Your task to perform on an android device: turn vacation reply on in the gmail app Image 0: 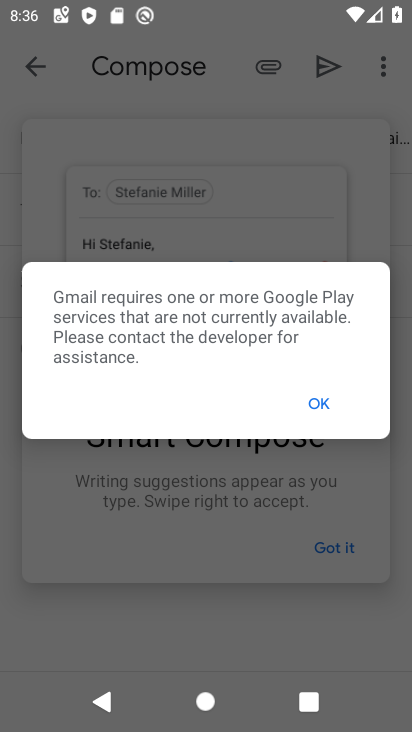
Step 0: press home button
Your task to perform on an android device: turn vacation reply on in the gmail app Image 1: 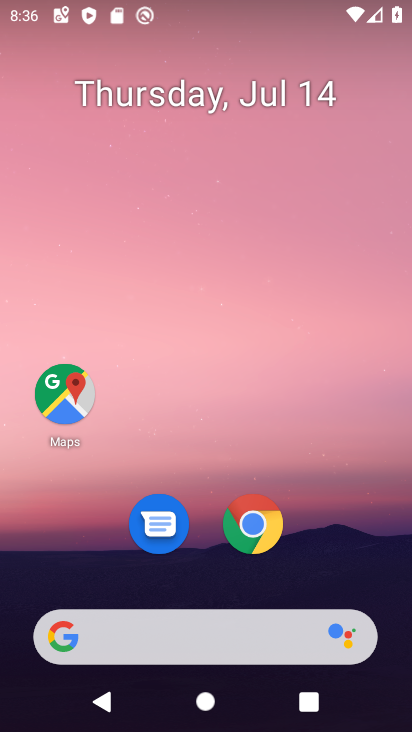
Step 1: drag from (318, 550) to (332, 37)
Your task to perform on an android device: turn vacation reply on in the gmail app Image 2: 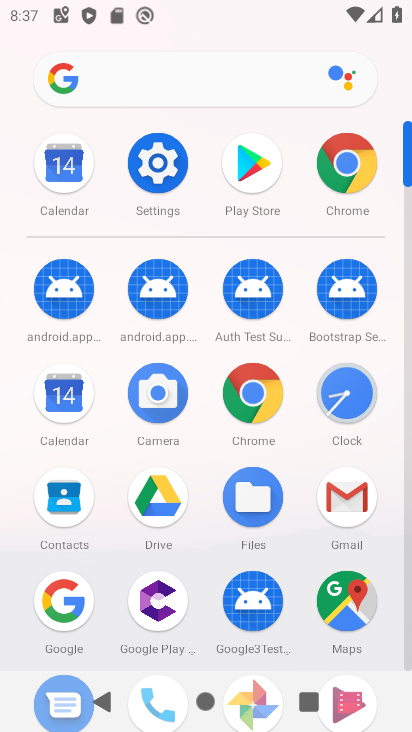
Step 2: click (352, 496)
Your task to perform on an android device: turn vacation reply on in the gmail app Image 3: 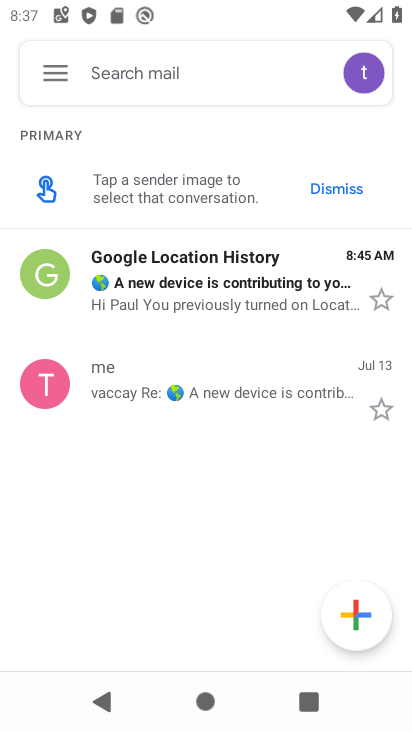
Step 3: click (53, 69)
Your task to perform on an android device: turn vacation reply on in the gmail app Image 4: 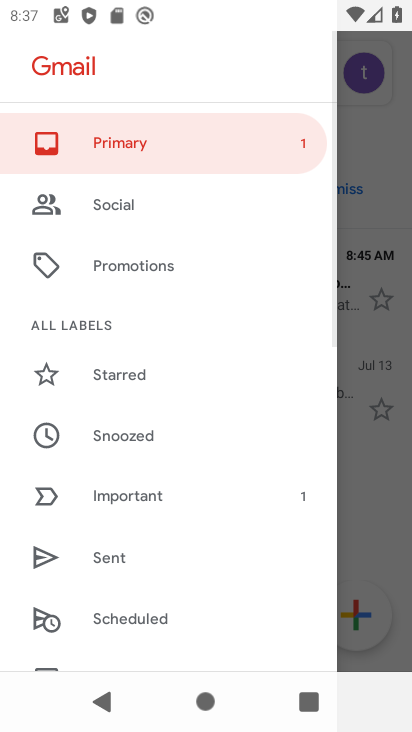
Step 4: drag from (164, 554) to (210, 48)
Your task to perform on an android device: turn vacation reply on in the gmail app Image 5: 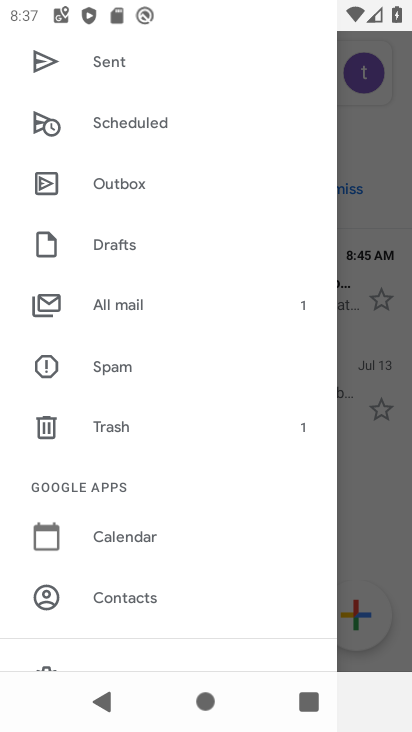
Step 5: drag from (177, 542) to (210, 333)
Your task to perform on an android device: turn vacation reply on in the gmail app Image 6: 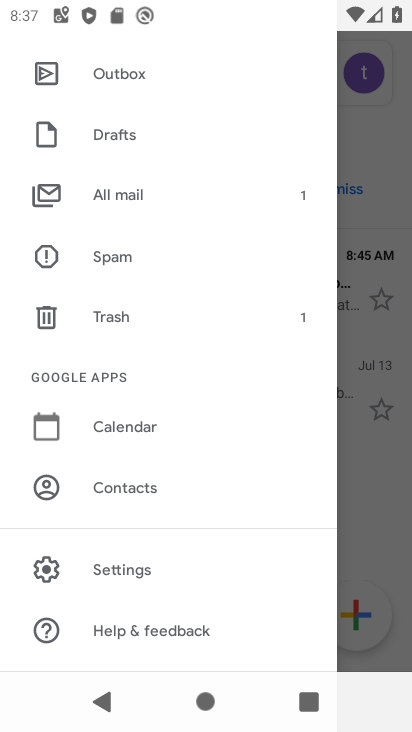
Step 6: click (133, 572)
Your task to perform on an android device: turn vacation reply on in the gmail app Image 7: 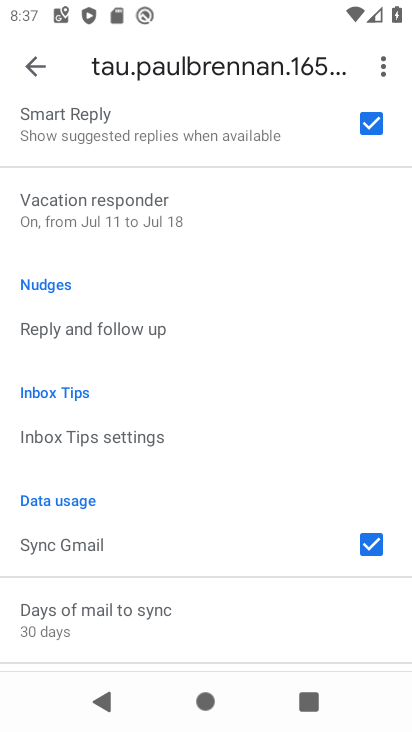
Step 7: drag from (233, 529) to (235, 398)
Your task to perform on an android device: turn vacation reply on in the gmail app Image 8: 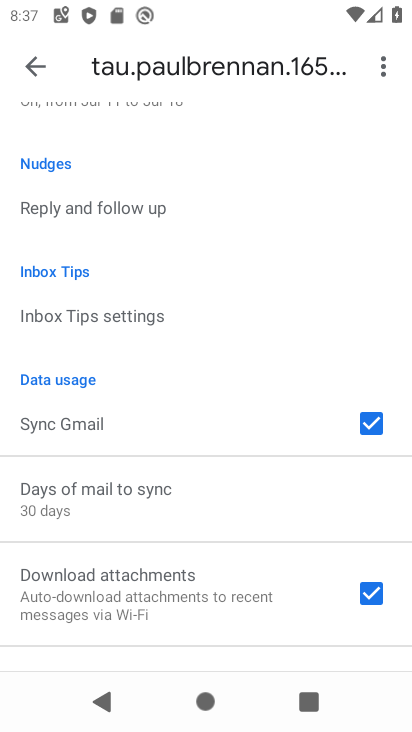
Step 8: drag from (240, 309) to (228, 515)
Your task to perform on an android device: turn vacation reply on in the gmail app Image 9: 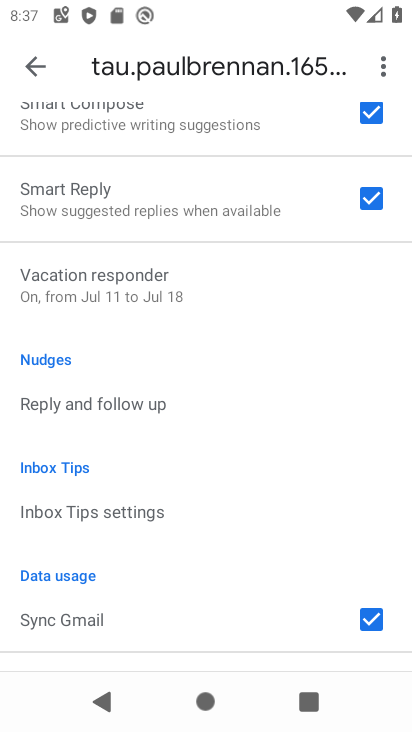
Step 9: click (174, 291)
Your task to perform on an android device: turn vacation reply on in the gmail app Image 10: 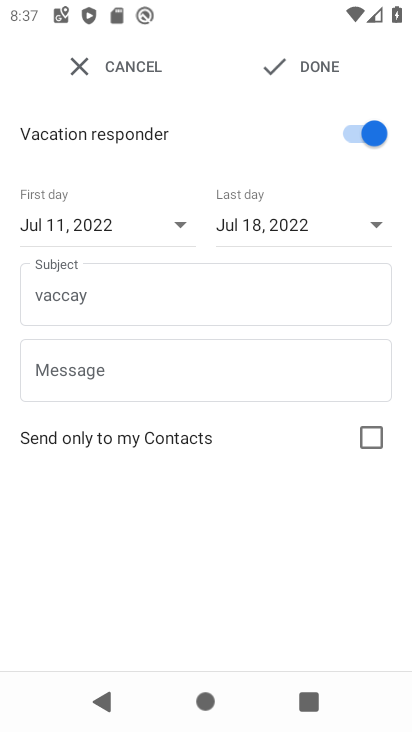
Step 10: task complete